Your task to perform on an android device: Go to Android settings Image 0: 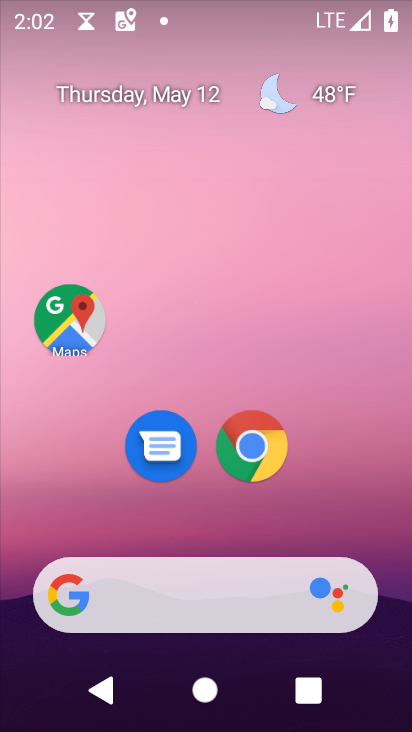
Step 0: drag from (314, 519) to (303, 96)
Your task to perform on an android device: Go to Android settings Image 1: 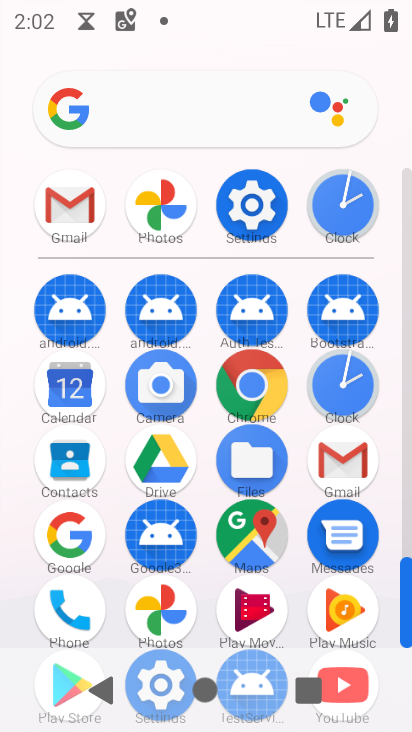
Step 1: click (252, 210)
Your task to perform on an android device: Go to Android settings Image 2: 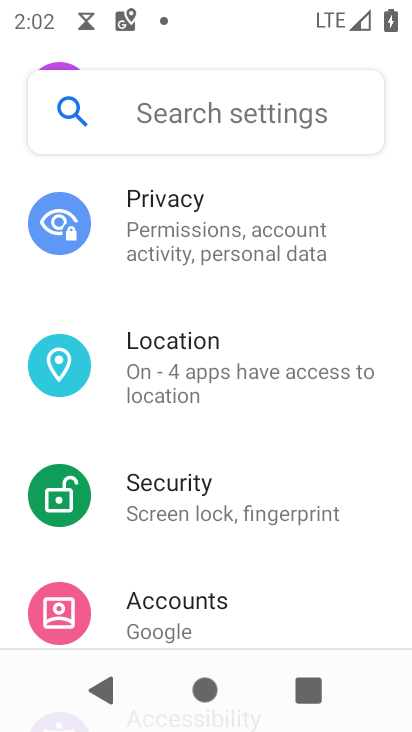
Step 2: drag from (297, 598) to (276, 231)
Your task to perform on an android device: Go to Android settings Image 3: 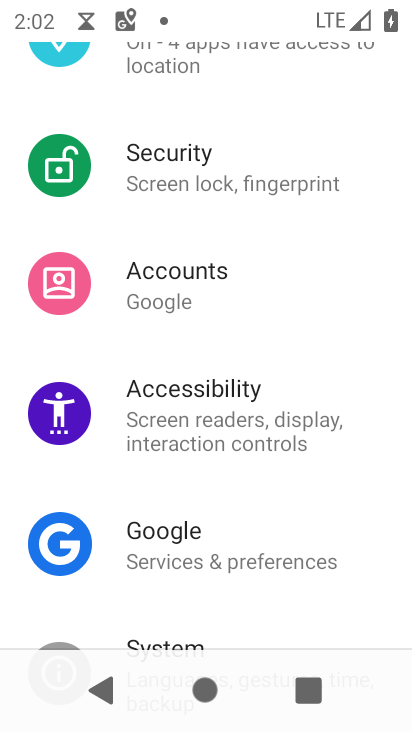
Step 3: drag from (327, 569) to (344, 157)
Your task to perform on an android device: Go to Android settings Image 4: 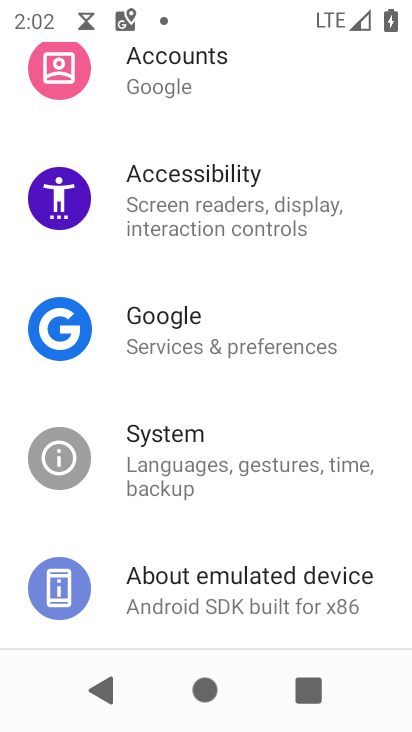
Step 4: click (242, 590)
Your task to perform on an android device: Go to Android settings Image 5: 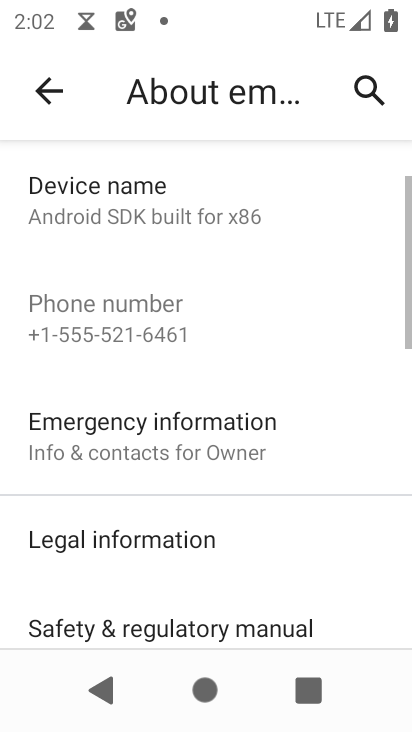
Step 5: drag from (231, 564) to (271, 232)
Your task to perform on an android device: Go to Android settings Image 6: 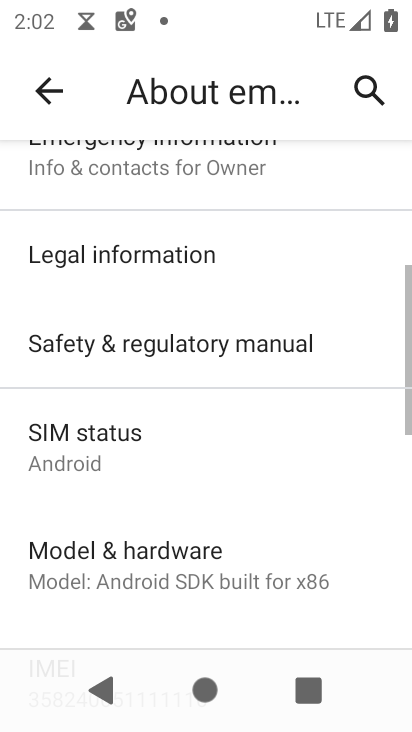
Step 6: drag from (248, 559) to (283, 254)
Your task to perform on an android device: Go to Android settings Image 7: 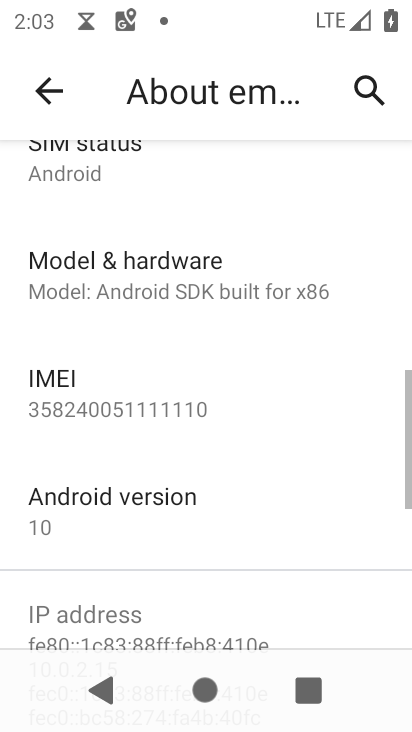
Step 7: click (129, 505)
Your task to perform on an android device: Go to Android settings Image 8: 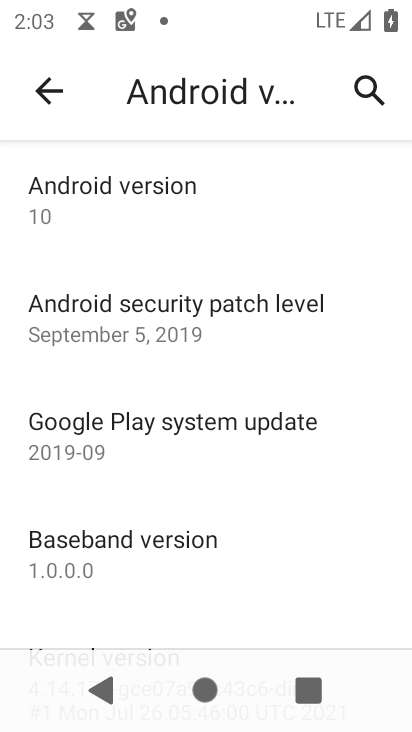
Step 8: task complete